Your task to perform on an android device: open wifi settings Image 0: 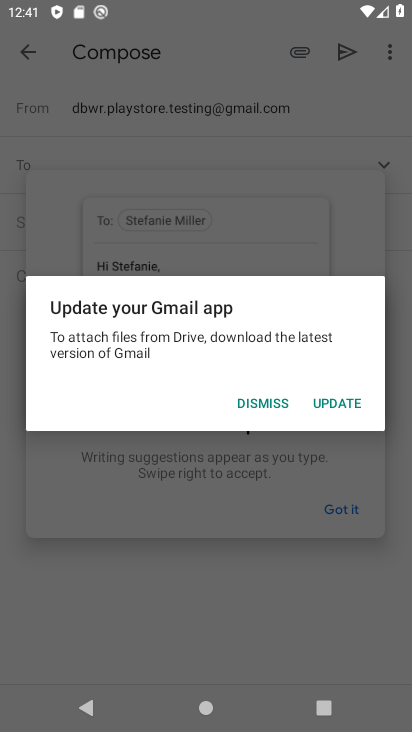
Step 0: press home button
Your task to perform on an android device: open wifi settings Image 1: 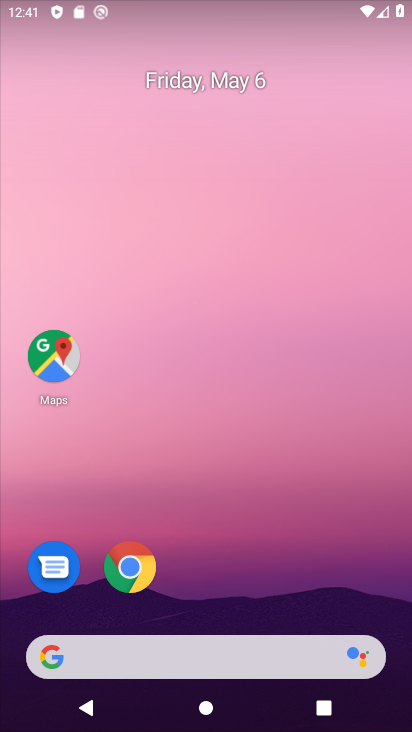
Step 1: drag from (265, 612) to (199, 319)
Your task to perform on an android device: open wifi settings Image 2: 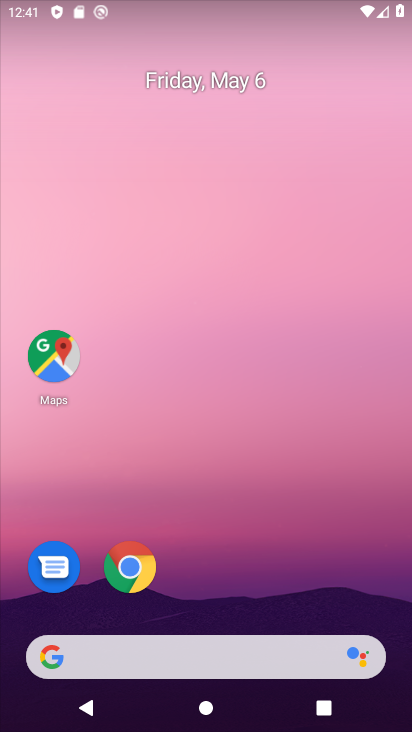
Step 2: drag from (268, 693) to (201, 268)
Your task to perform on an android device: open wifi settings Image 3: 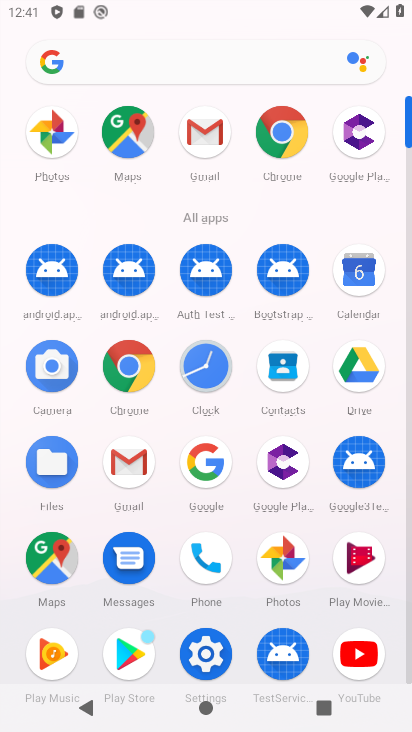
Step 3: click (196, 662)
Your task to perform on an android device: open wifi settings Image 4: 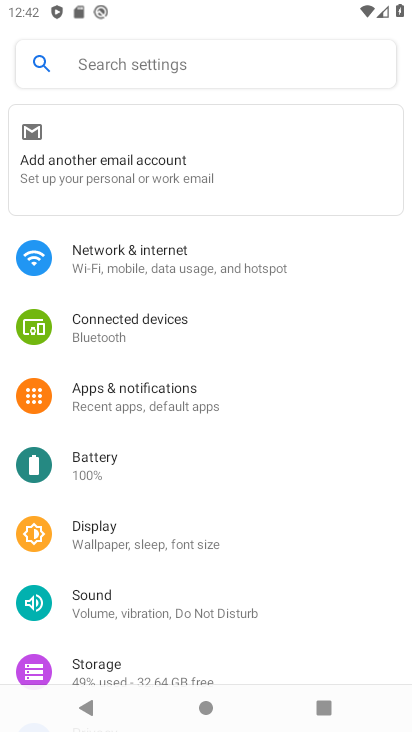
Step 4: click (174, 269)
Your task to perform on an android device: open wifi settings Image 5: 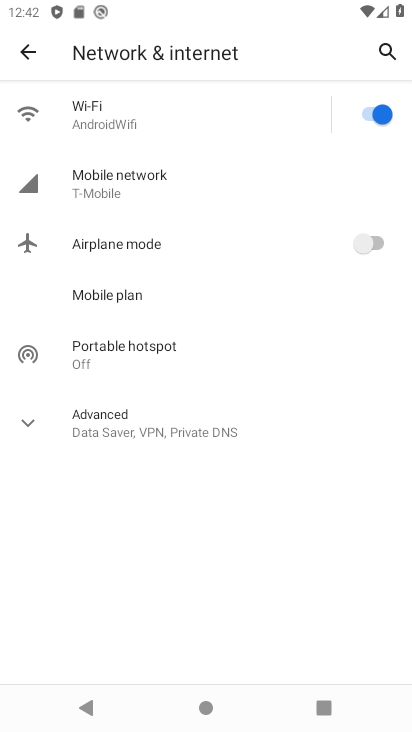
Step 5: click (145, 118)
Your task to perform on an android device: open wifi settings Image 6: 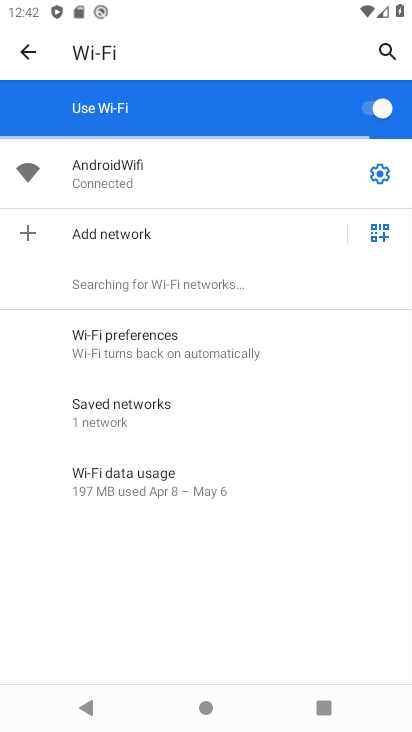
Step 6: task complete